Your task to perform on an android device: Search for Mexican restaurants on Maps Image 0: 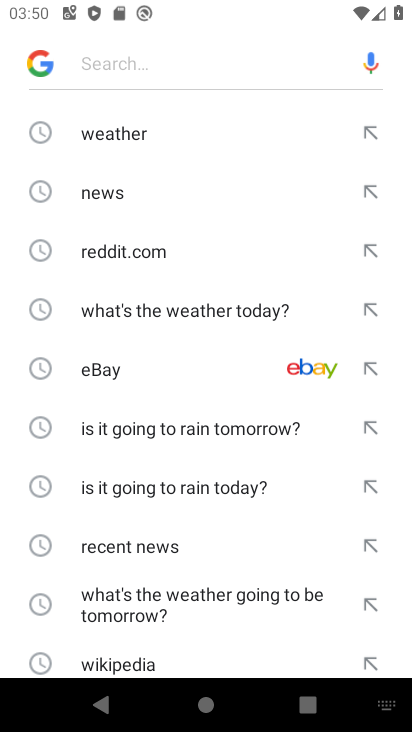
Step 0: press back button
Your task to perform on an android device: Search for Mexican restaurants on Maps Image 1: 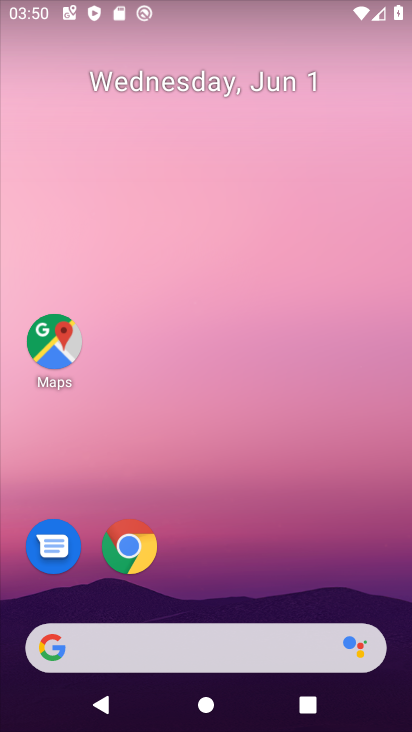
Step 1: click (61, 357)
Your task to perform on an android device: Search for Mexican restaurants on Maps Image 2: 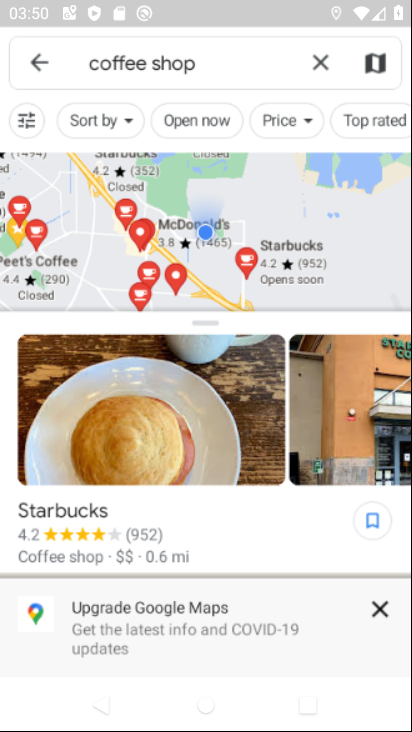
Step 2: click (308, 59)
Your task to perform on an android device: Search for Mexican restaurants on Maps Image 3: 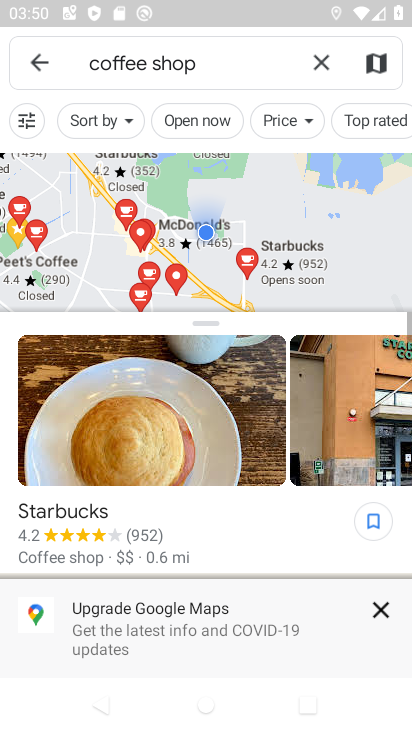
Step 3: click (315, 59)
Your task to perform on an android device: Search for Mexican restaurants on Maps Image 4: 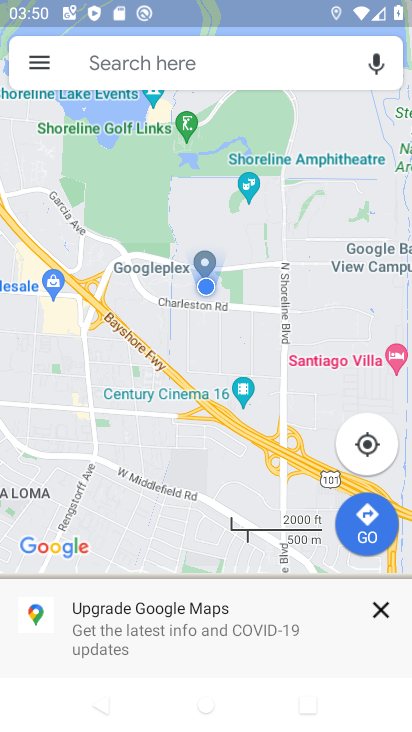
Step 4: click (223, 71)
Your task to perform on an android device: Search for Mexican restaurants on Maps Image 5: 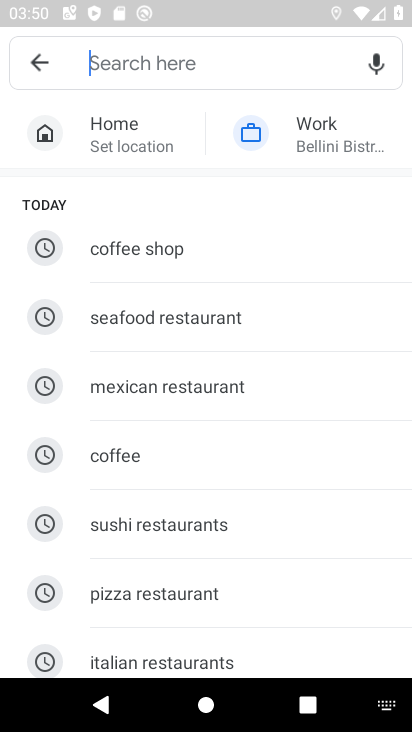
Step 5: type "mexican"
Your task to perform on an android device: Search for Mexican restaurants on Maps Image 6: 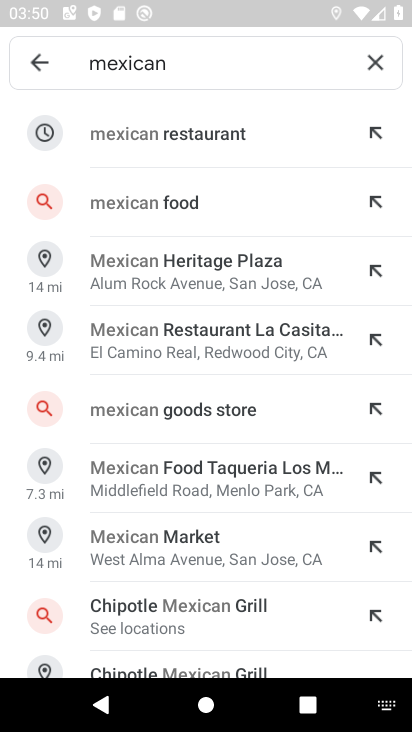
Step 6: click (196, 141)
Your task to perform on an android device: Search for Mexican restaurants on Maps Image 7: 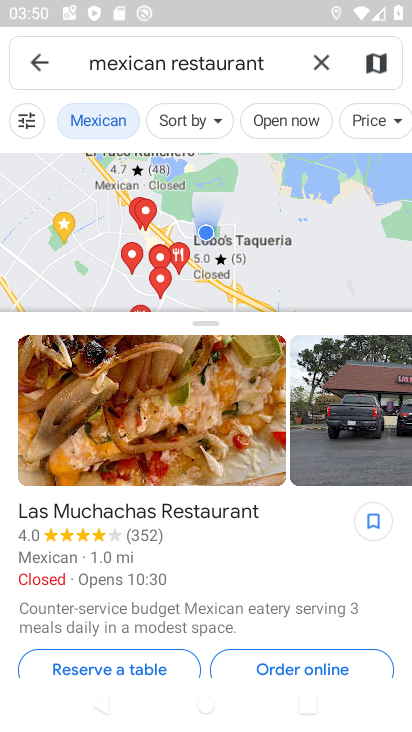
Step 7: task complete